Your task to perform on an android device: Open the phone app and click the voicemail tab. Image 0: 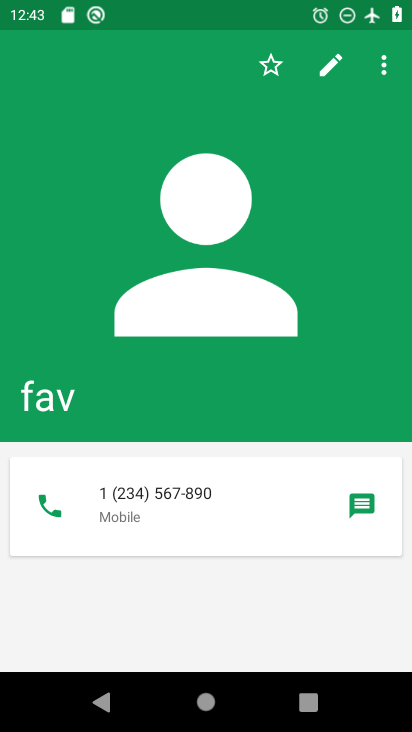
Step 0: press home button
Your task to perform on an android device: Open the phone app and click the voicemail tab. Image 1: 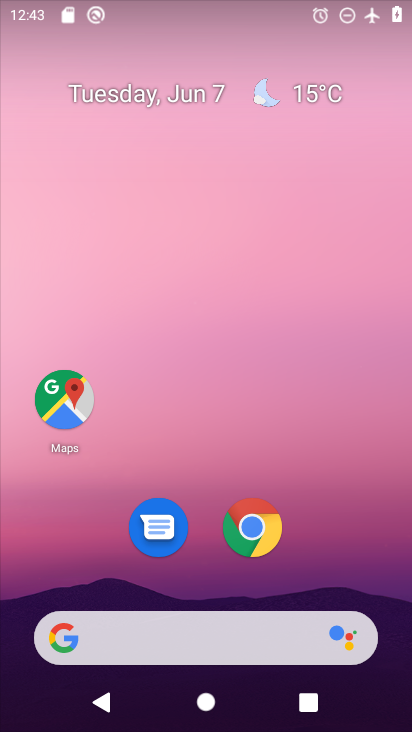
Step 1: drag from (355, 517) to (359, 88)
Your task to perform on an android device: Open the phone app and click the voicemail tab. Image 2: 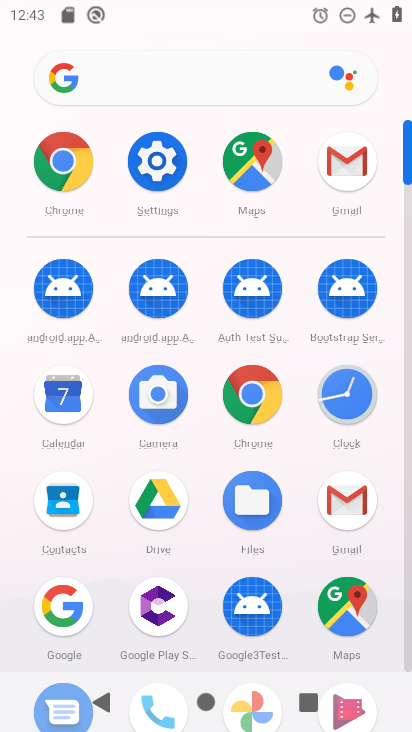
Step 2: drag from (296, 541) to (298, 189)
Your task to perform on an android device: Open the phone app and click the voicemail tab. Image 3: 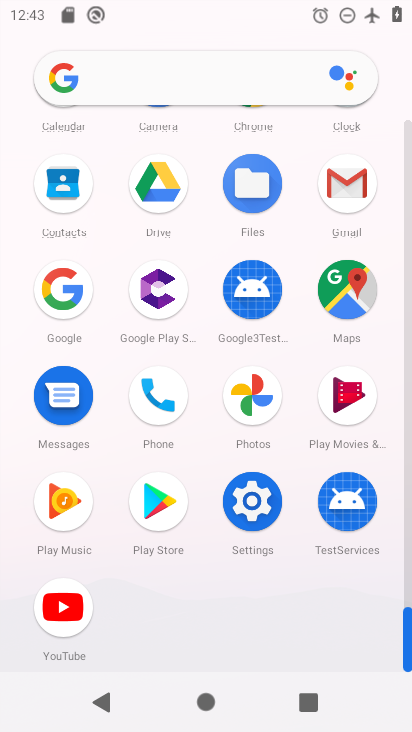
Step 3: click (158, 402)
Your task to perform on an android device: Open the phone app and click the voicemail tab. Image 4: 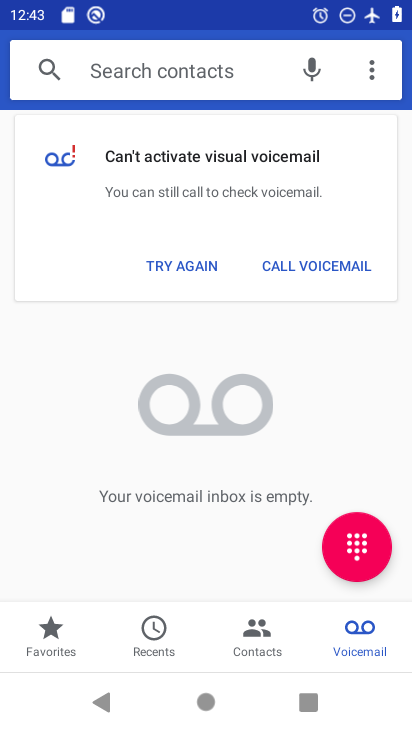
Step 4: task complete